Your task to perform on an android device: add a label to a message in the gmail app Image 0: 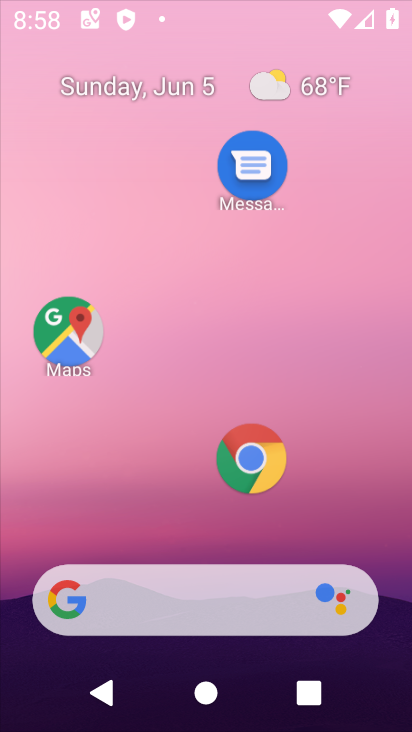
Step 0: drag from (297, 15) to (15, 590)
Your task to perform on an android device: add a label to a message in the gmail app Image 1: 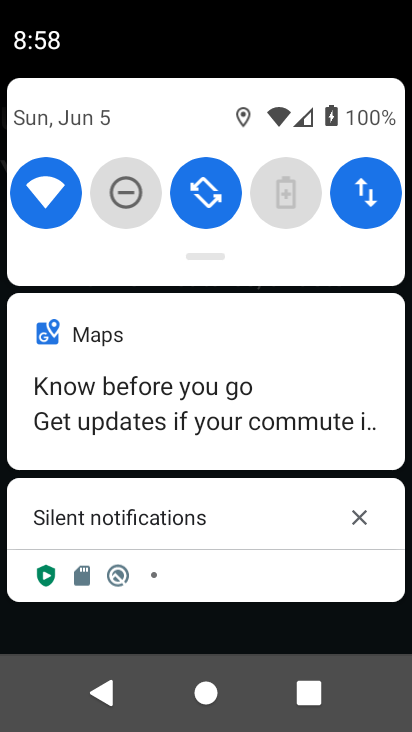
Step 1: press home button
Your task to perform on an android device: add a label to a message in the gmail app Image 2: 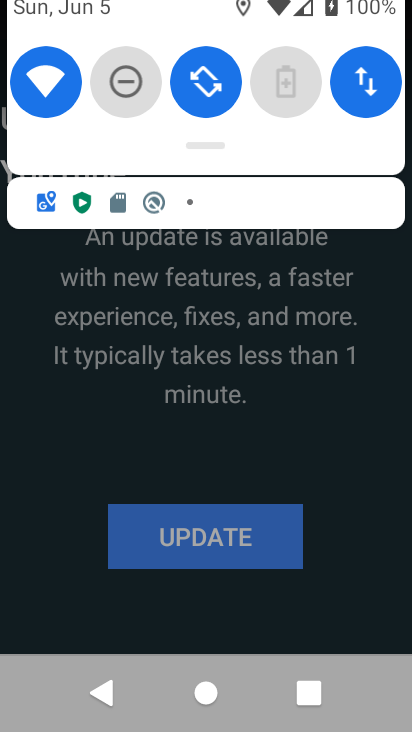
Step 2: drag from (252, 502) to (258, 1)
Your task to perform on an android device: add a label to a message in the gmail app Image 3: 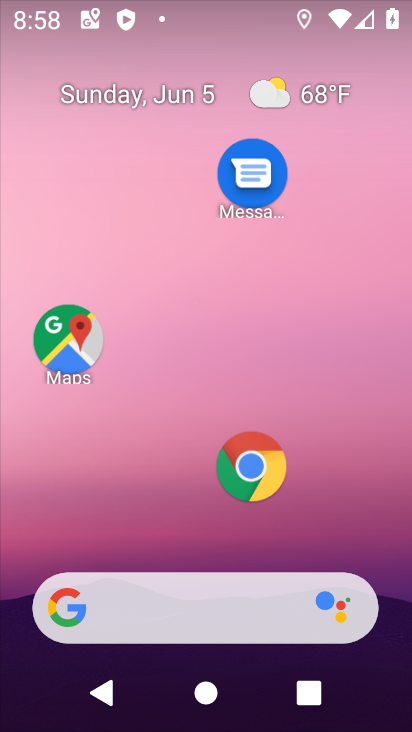
Step 3: drag from (192, 562) to (270, 19)
Your task to perform on an android device: add a label to a message in the gmail app Image 4: 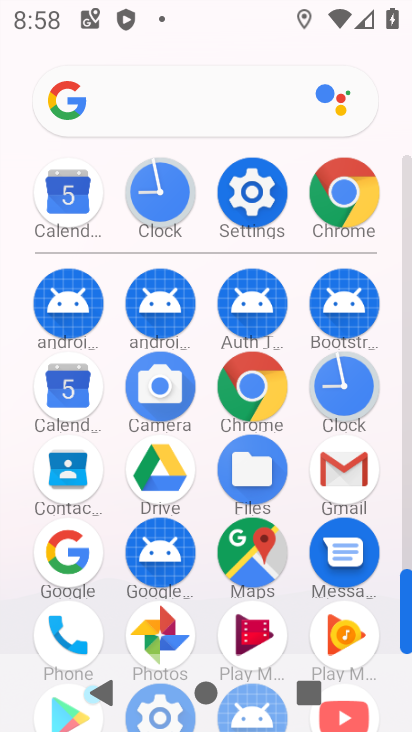
Step 4: click (346, 459)
Your task to perform on an android device: add a label to a message in the gmail app Image 5: 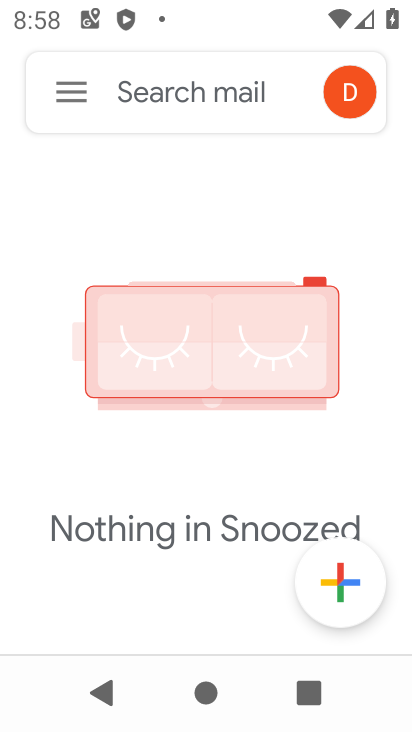
Step 5: click (68, 106)
Your task to perform on an android device: add a label to a message in the gmail app Image 6: 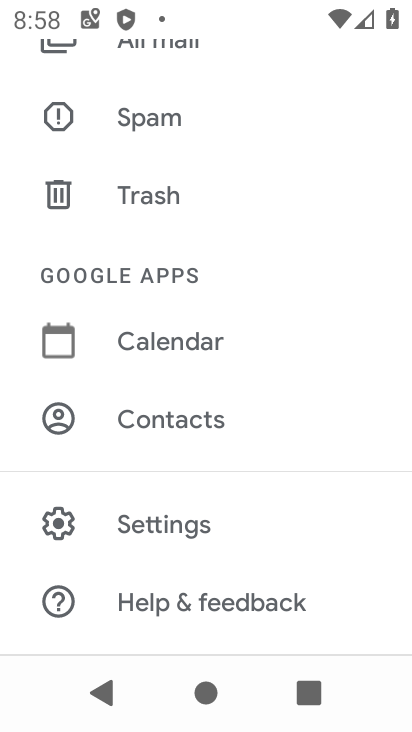
Step 6: drag from (205, 178) to (407, 689)
Your task to perform on an android device: add a label to a message in the gmail app Image 7: 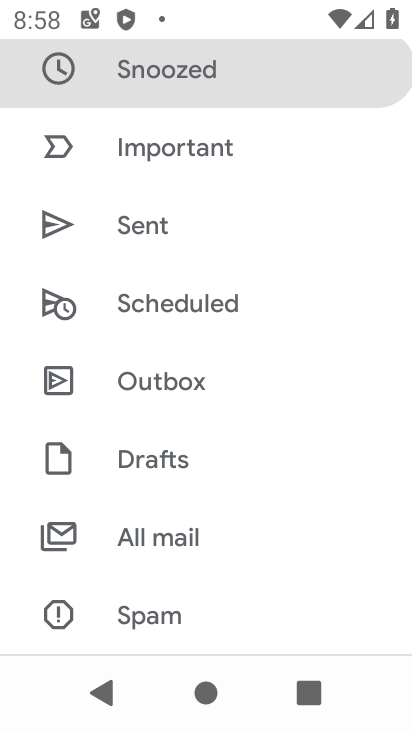
Step 7: drag from (232, 148) to (372, 685)
Your task to perform on an android device: add a label to a message in the gmail app Image 8: 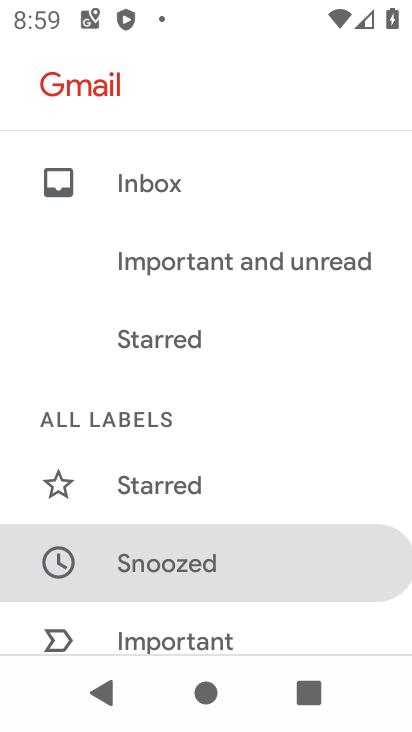
Step 8: drag from (266, 586) to (243, 275)
Your task to perform on an android device: add a label to a message in the gmail app Image 9: 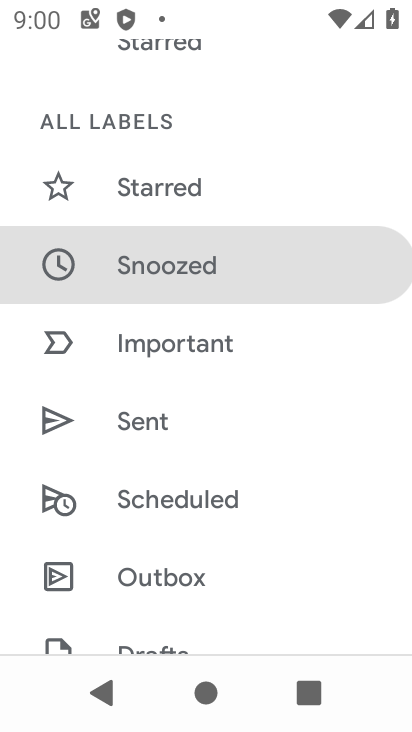
Step 9: drag from (184, 511) to (233, 228)
Your task to perform on an android device: add a label to a message in the gmail app Image 10: 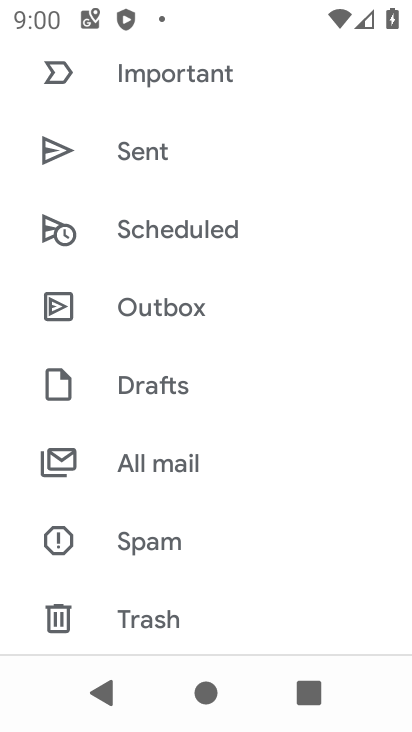
Step 10: drag from (213, 553) to (303, 3)
Your task to perform on an android device: add a label to a message in the gmail app Image 11: 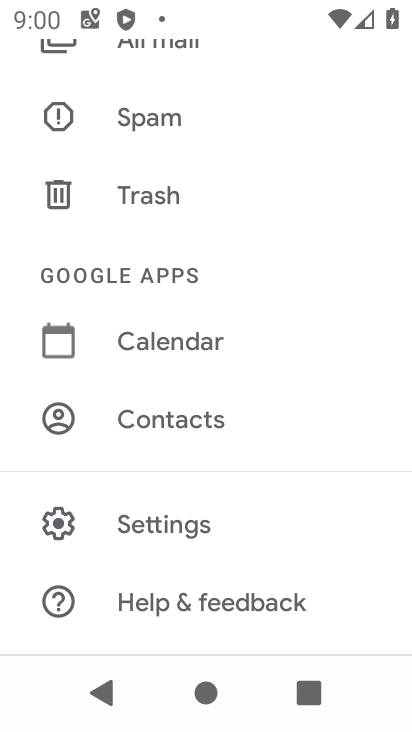
Step 11: click (188, 533)
Your task to perform on an android device: add a label to a message in the gmail app Image 12: 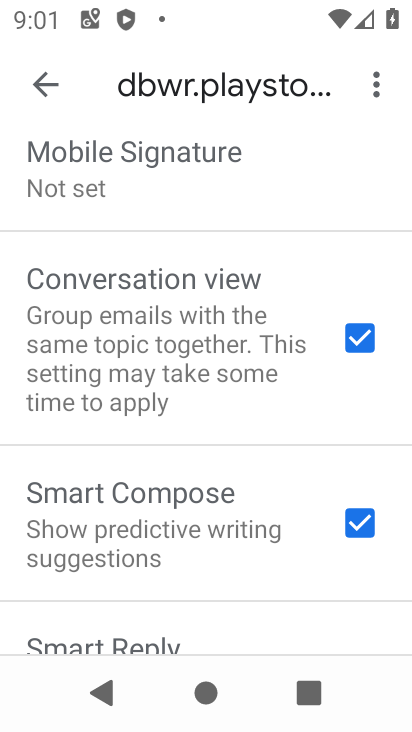
Step 12: drag from (224, 602) to (286, 297)
Your task to perform on an android device: add a label to a message in the gmail app Image 13: 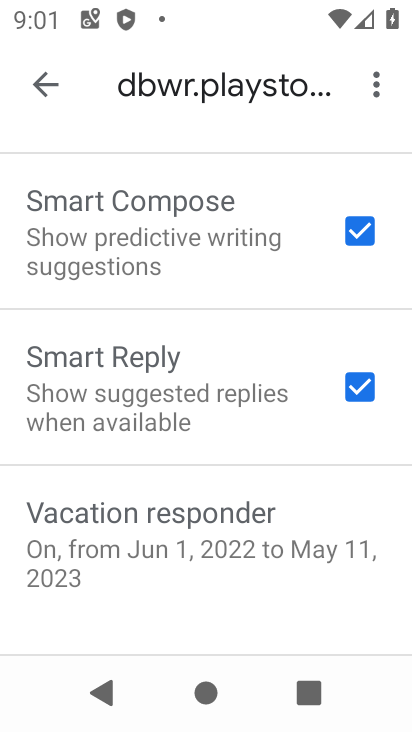
Step 13: drag from (223, 504) to (288, 250)
Your task to perform on an android device: add a label to a message in the gmail app Image 14: 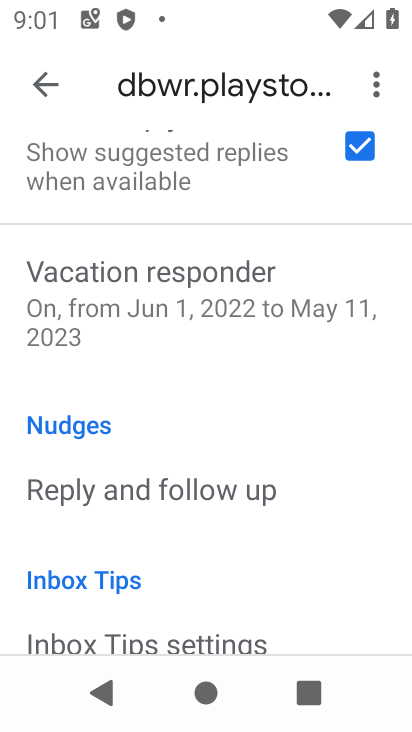
Step 14: click (28, 62)
Your task to perform on an android device: add a label to a message in the gmail app Image 15: 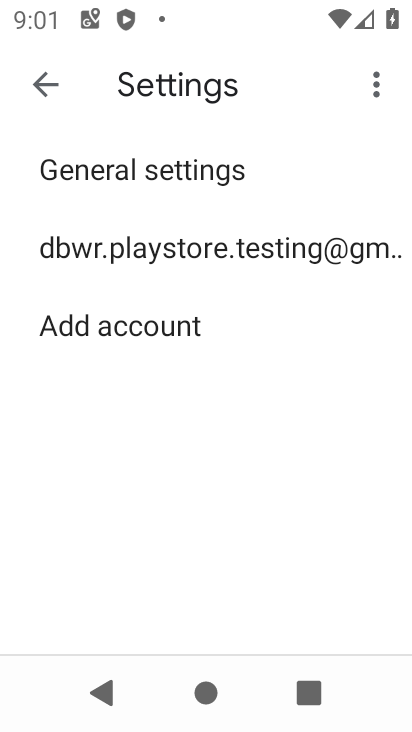
Step 15: click (48, 88)
Your task to perform on an android device: add a label to a message in the gmail app Image 16: 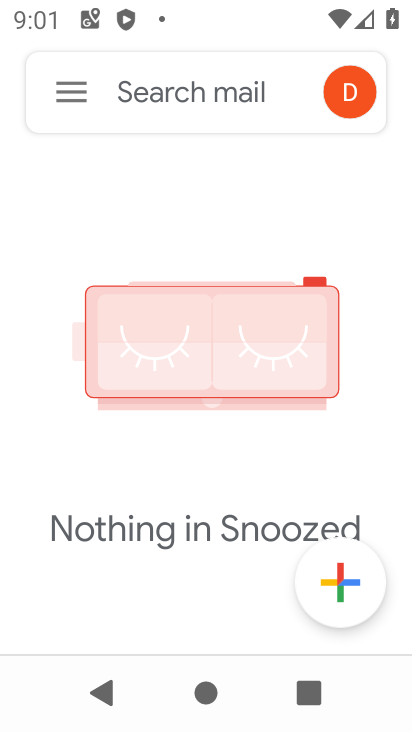
Step 16: drag from (198, 372) to (208, 197)
Your task to perform on an android device: add a label to a message in the gmail app Image 17: 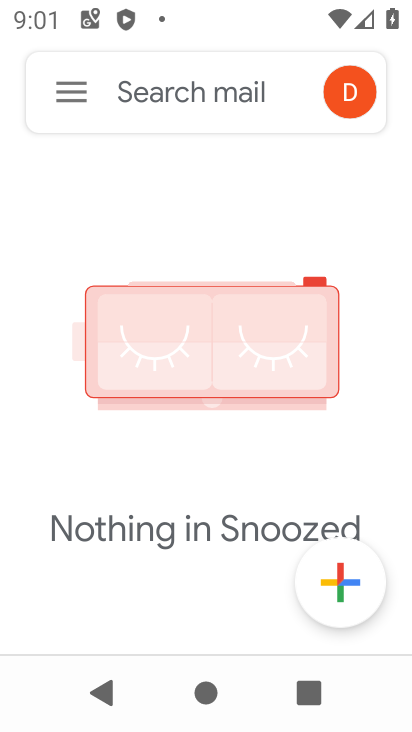
Step 17: drag from (186, 509) to (209, 263)
Your task to perform on an android device: add a label to a message in the gmail app Image 18: 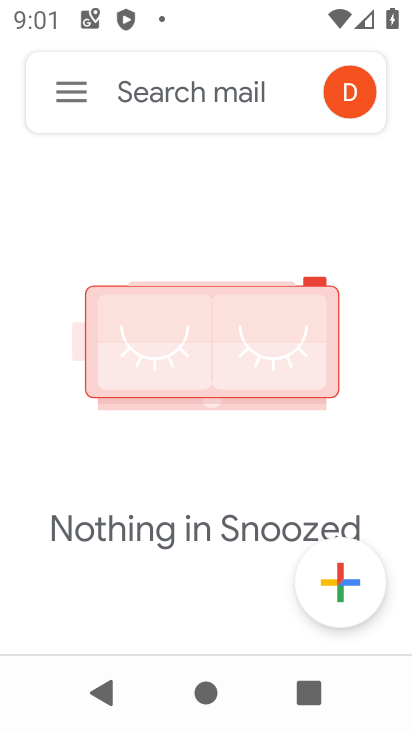
Step 18: click (73, 96)
Your task to perform on an android device: add a label to a message in the gmail app Image 19: 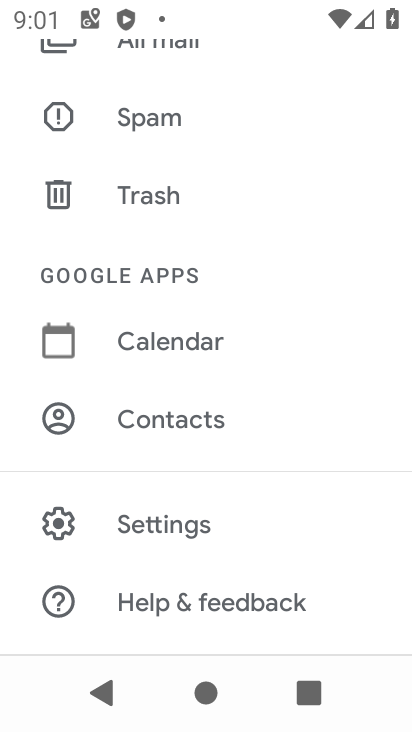
Step 19: drag from (197, 228) to (302, 731)
Your task to perform on an android device: add a label to a message in the gmail app Image 20: 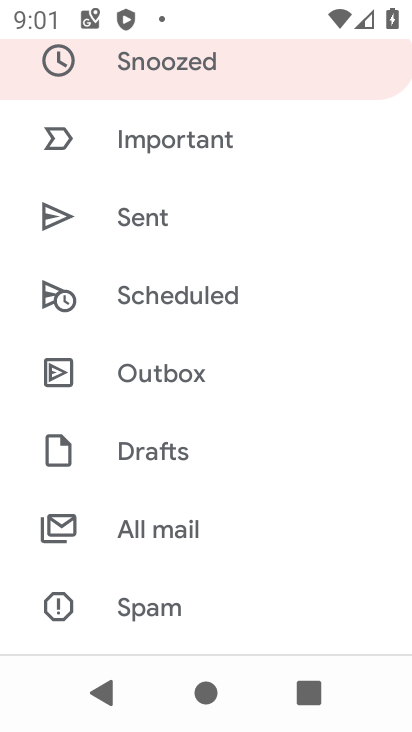
Step 20: drag from (195, 146) to (268, 673)
Your task to perform on an android device: add a label to a message in the gmail app Image 21: 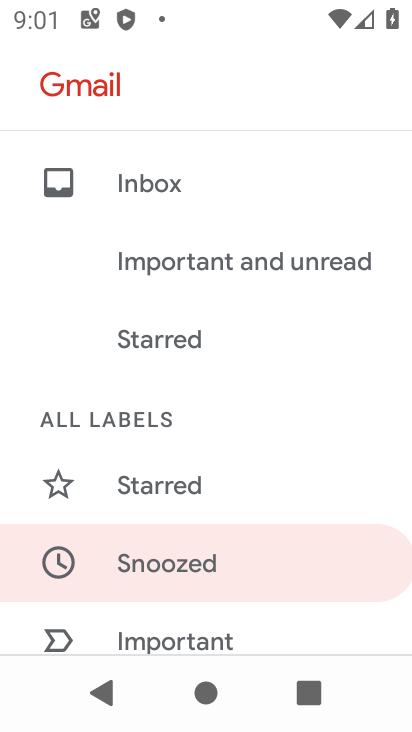
Step 21: click (151, 186)
Your task to perform on an android device: add a label to a message in the gmail app Image 22: 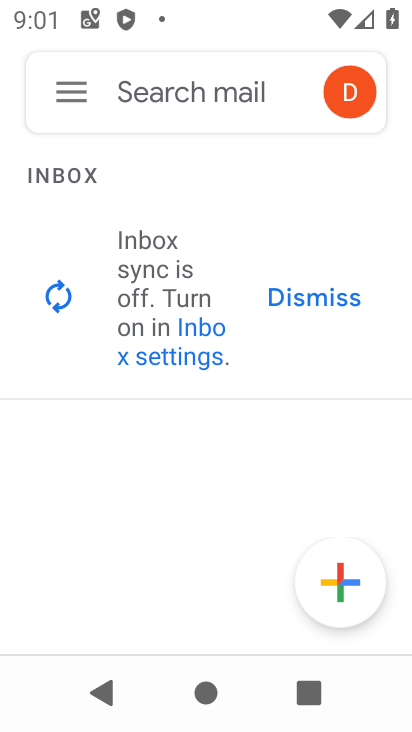
Step 22: task complete